Your task to perform on an android device: remove spam from my inbox in the gmail app Image 0: 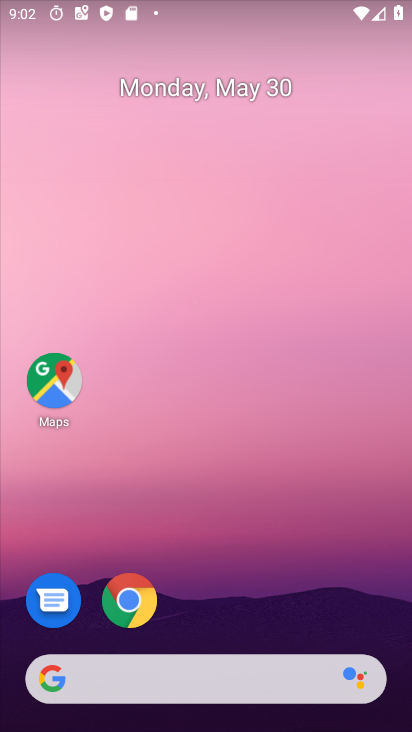
Step 0: drag from (327, 545) to (240, 4)
Your task to perform on an android device: remove spam from my inbox in the gmail app Image 1: 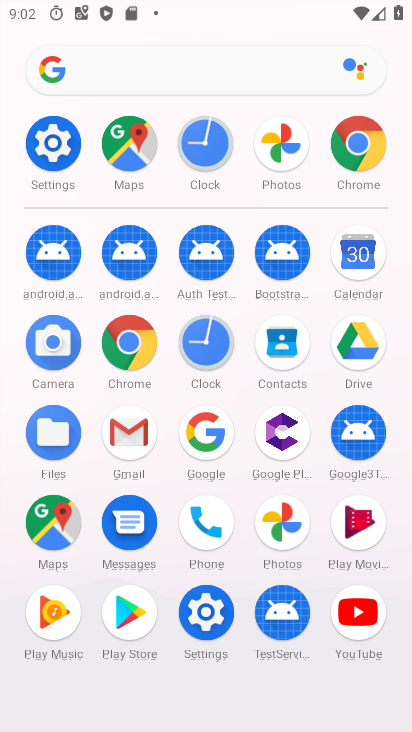
Step 1: drag from (5, 316) to (5, 241)
Your task to perform on an android device: remove spam from my inbox in the gmail app Image 2: 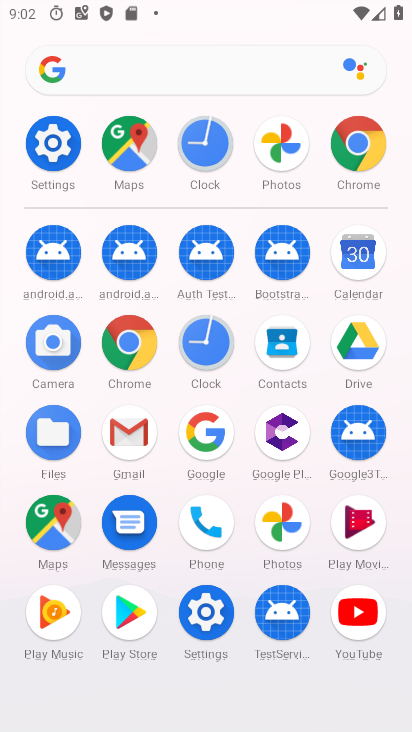
Step 2: click (126, 428)
Your task to perform on an android device: remove spam from my inbox in the gmail app Image 3: 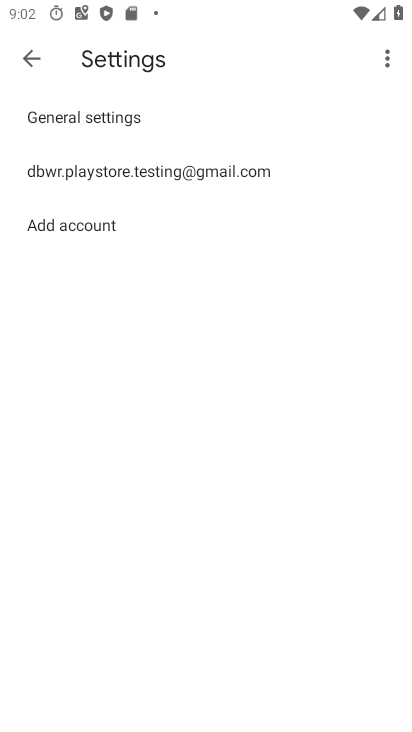
Step 3: click (35, 65)
Your task to perform on an android device: remove spam from my inbox in the gmail app Image 4: 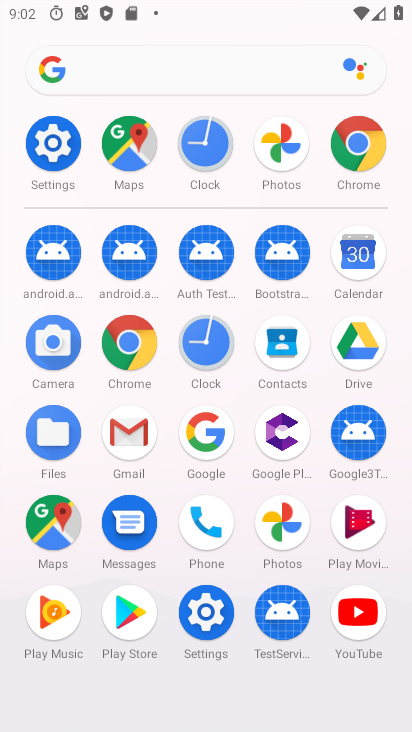
Step 4: click (128, 427)
Your task to perform on an android device: remove spam from my inbox in the gmail app Image 5: 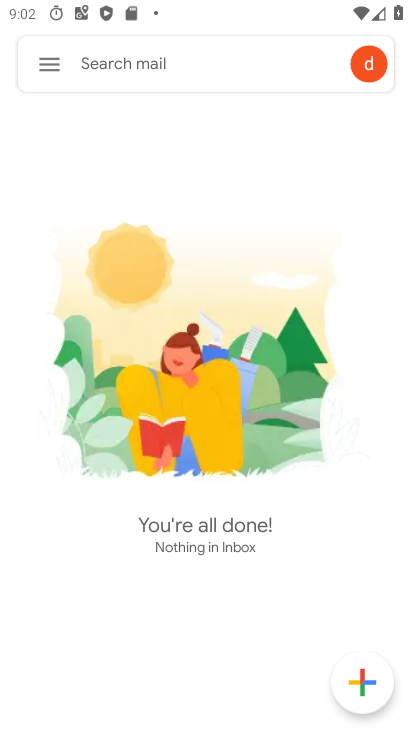
Step 5: click (52, 58)
Your task to perform on an android device: remove spam from my inbox in the gmail app Image 6: 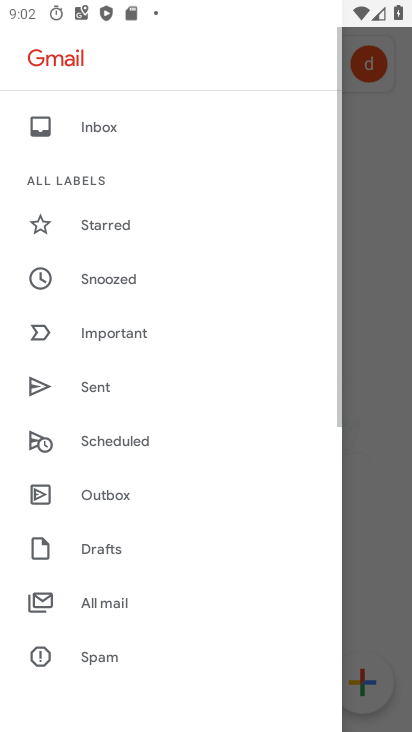
Step 6: drag from (167, 576) to (197, 128)
Your task to perform on an android device: remove spam from my inbox in the gmail app Image 7: 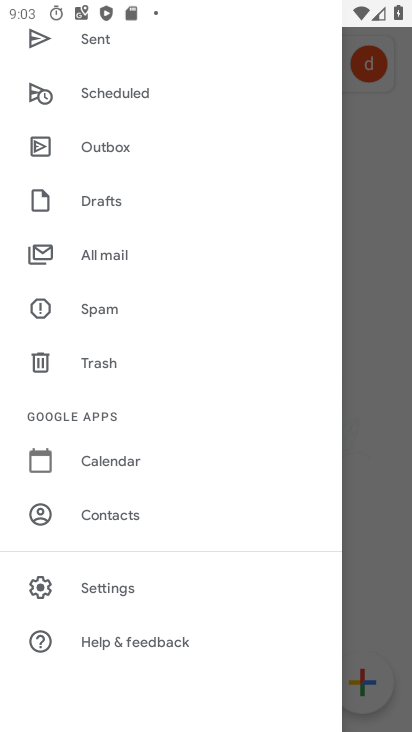
Step 7: click (110, 577)
Your task to perform on an android device: remove spam from my inbox in the gmail app Image 8: 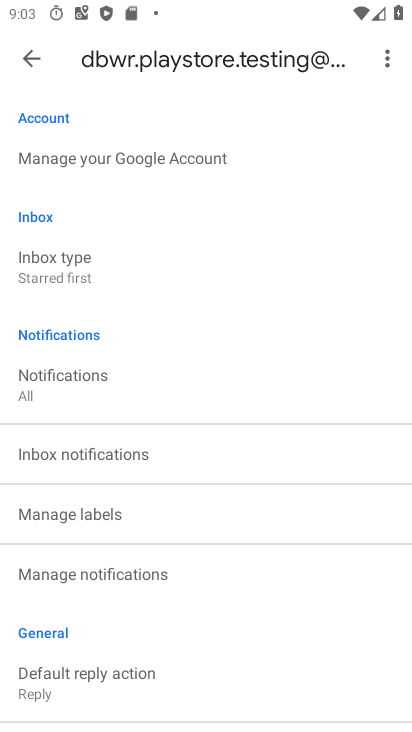
Step 8: click (18, 56)
Your task to perform on an android device: remove spam from my inbox in the gmail app Image 9: 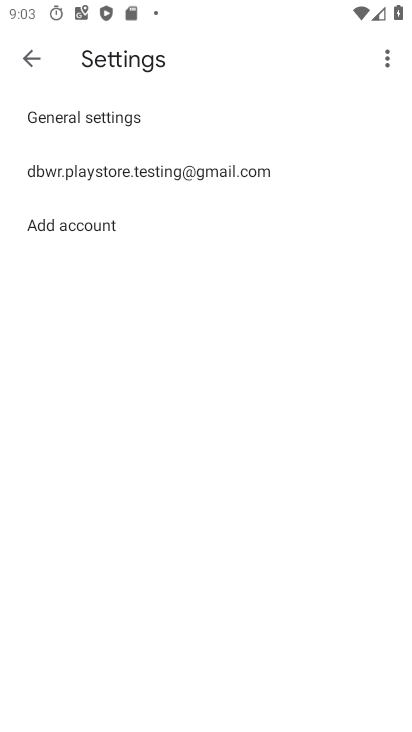
Step 9: click (27, 61)
Your task to perform on an android device: remove spam from my inbox in the gmail app Image 10: 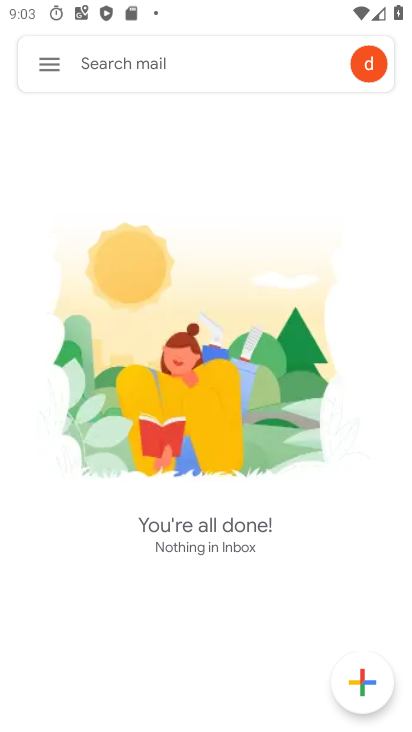
Step 10: click (38, 60)
Your task to perform on an android device: remove spam from my inbox in the gmail app Image 11: 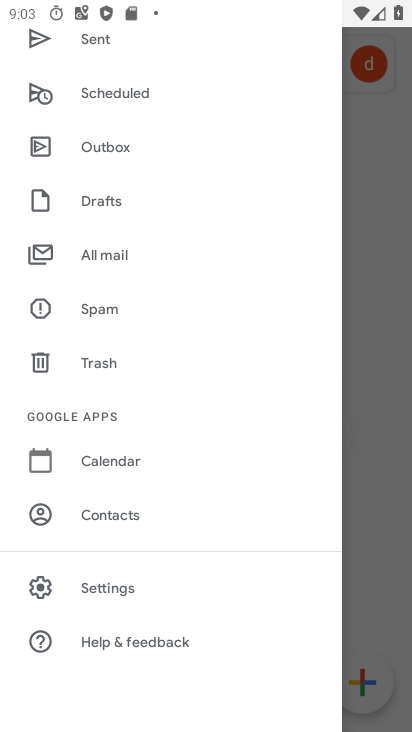
Step 11: click (104, 312)
Your task to perform on an android device: remove spam from my inbox in the gmail app Image 12: 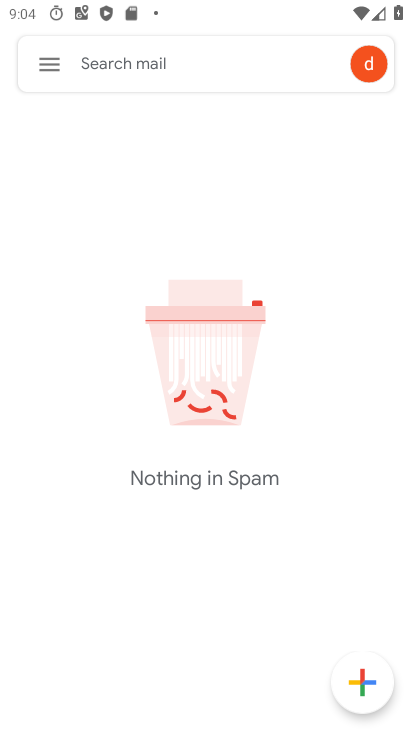
Step 12: task complete